Your task to perform on an android device: Open Chrome and go to settings Image 0: 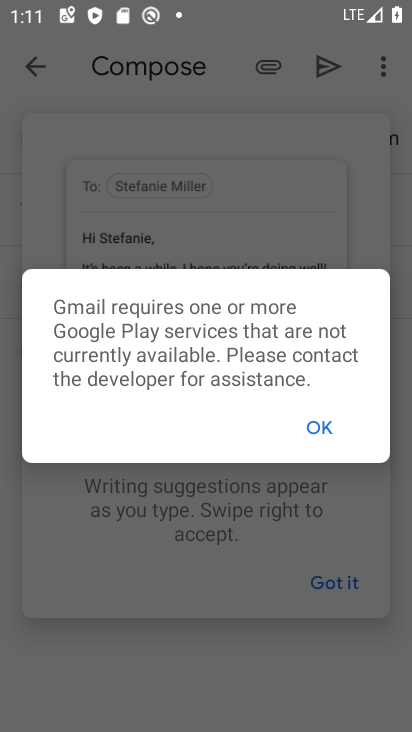
Step 0: press home button
Your task to perform on an android device: Open Chrome and go to settings Image 1: 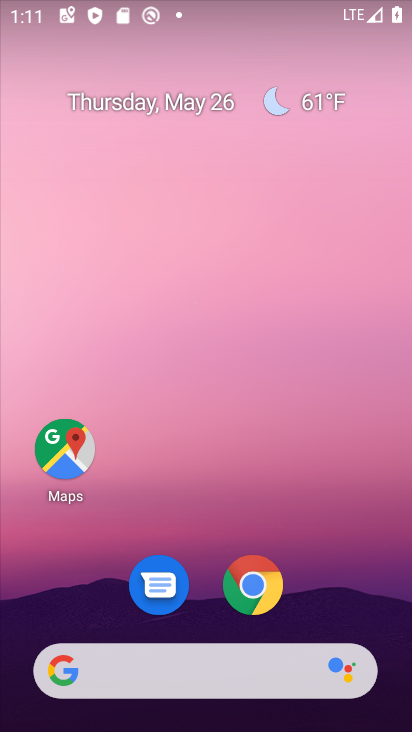
Step 1: click (210, 546)
Your task to perform on an android device: Open Chrome and go to settings Image 2: 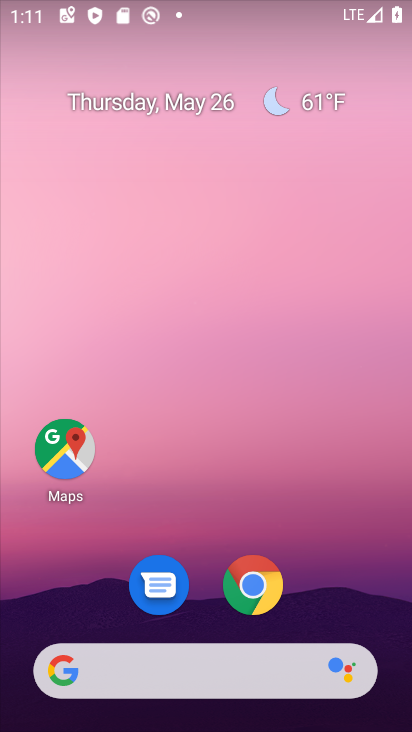
Step 2: click (252, 566)
Your task to perform on an android device: Open Chrome and go to settings Image 3: 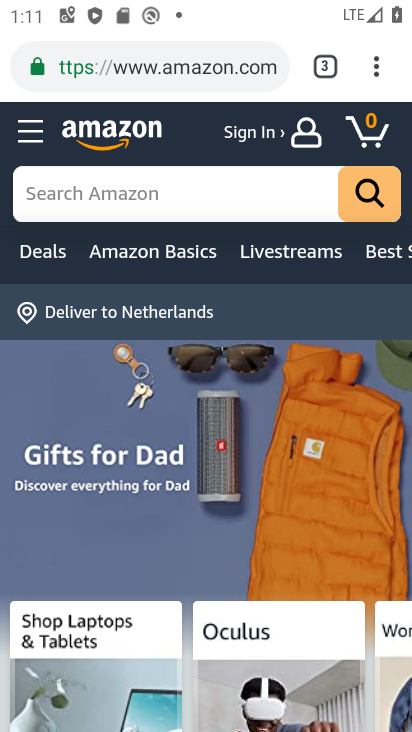
Step 3: click (252, 566)
Your task to perform on an android device: Open Chrome and go to settings Image 4: 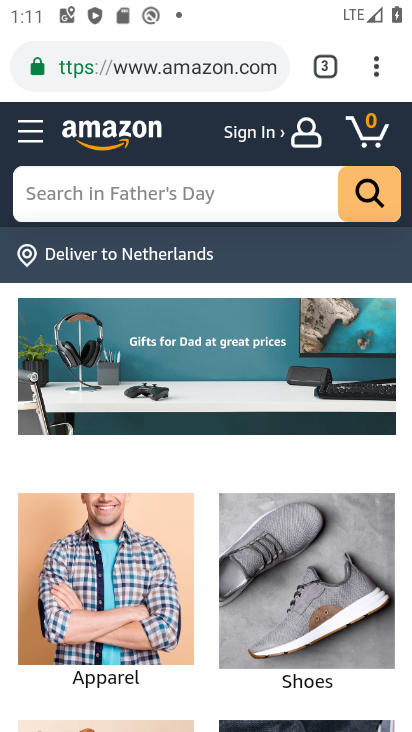
Step 4: click (378, 71)
Your task to perform on an android device: Open Chrome and go to settings Image 5: 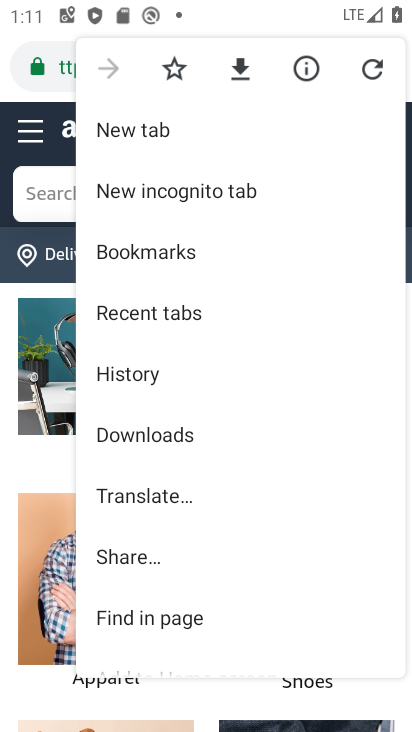
Step 5: drag from (244, 516) to (270, 204)
Your task to perform on an android device: Open Chrome and go to settings Image 6: 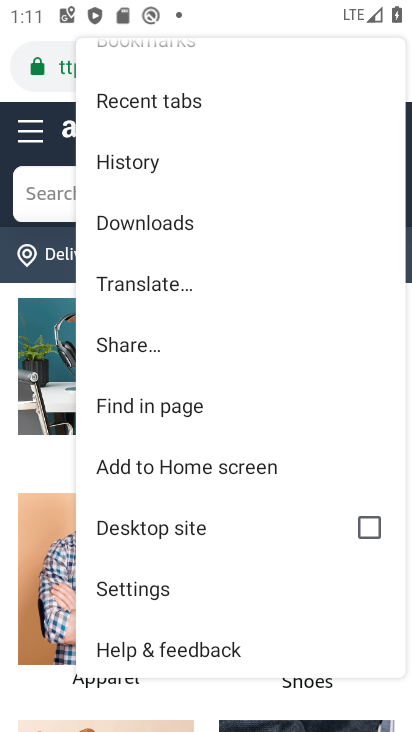
Step 6: click (138, 592)
Your task to perform on an android device: Open Chrome and go to settings Image 7: 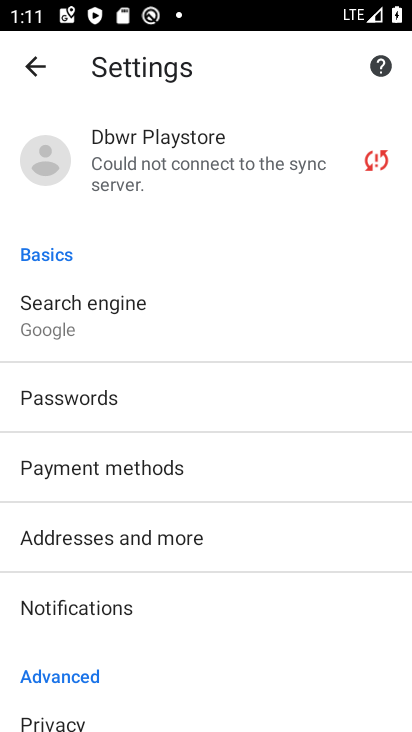
Step 7: task complete